Your task to perform on an android device: turn off translation in the chrome app Image 0: 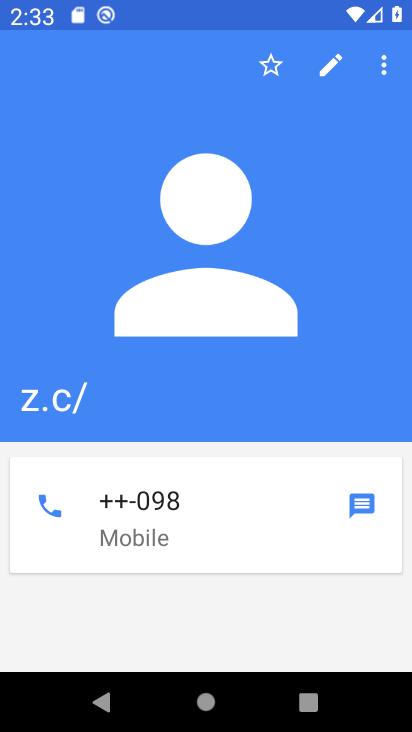
Step 0: press home button
Your task to perform on an android device: turn off translation in the chrome app Image 1: 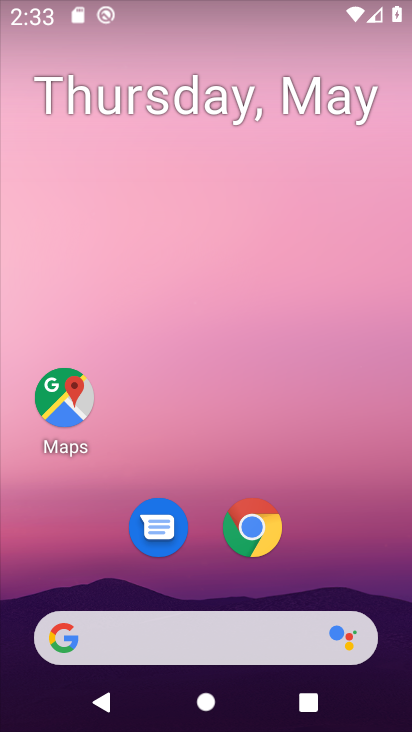
Step 1: click (275, 535)
Your task to perform on an android device: turn off translation in the chrome app Image 2: 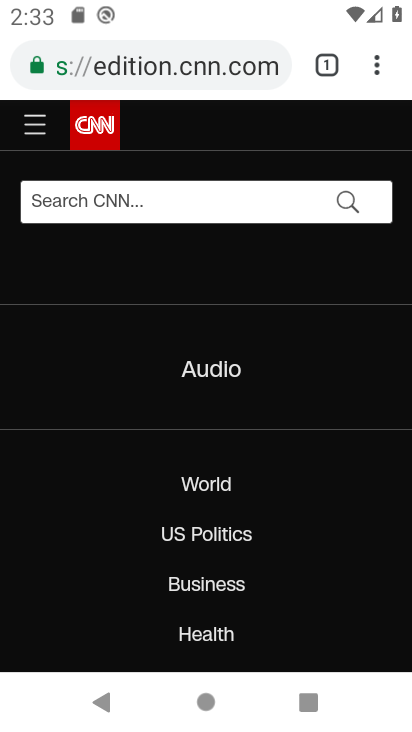
Step 2: drag from (380, 66) to (177, 594)
Your task to perform on an android device: turn off translation in the chrome app Image 3: 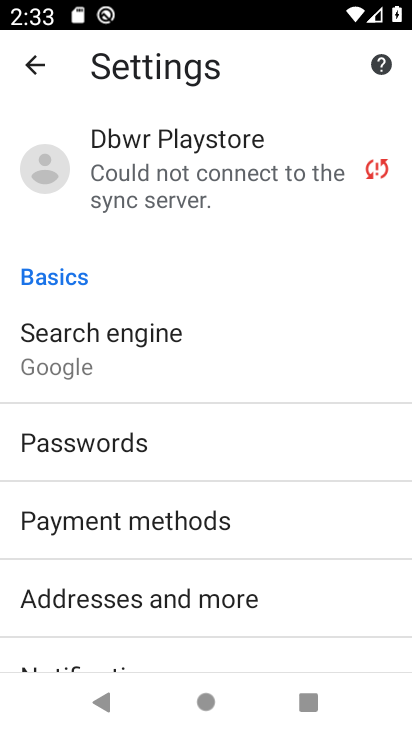
Step 3: drag from (178, 608) to (217, 129)
Your task to perform on an android device: turn off translation in the chrome app Image 4: 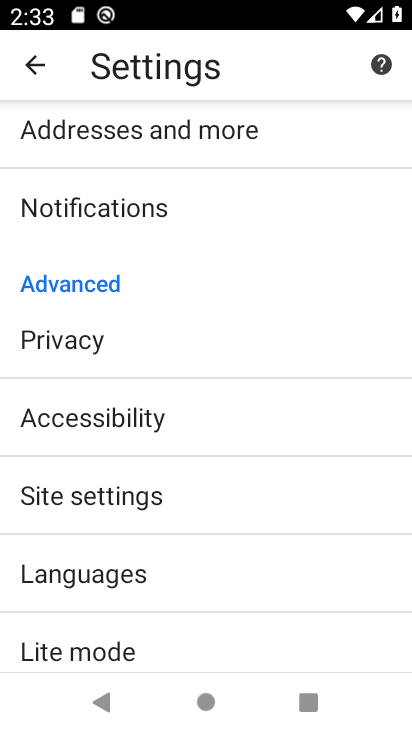
Step 4: click (200, 603)
Your task to perform on an android device: turn off translation in the chrome app Image 5: 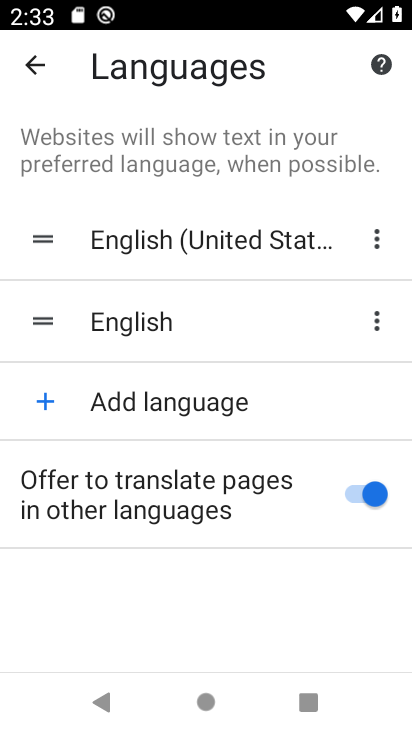
Step 5: click (190, 487)
Your task to perform on an android device: turn off translation in the chrome app Image 6: 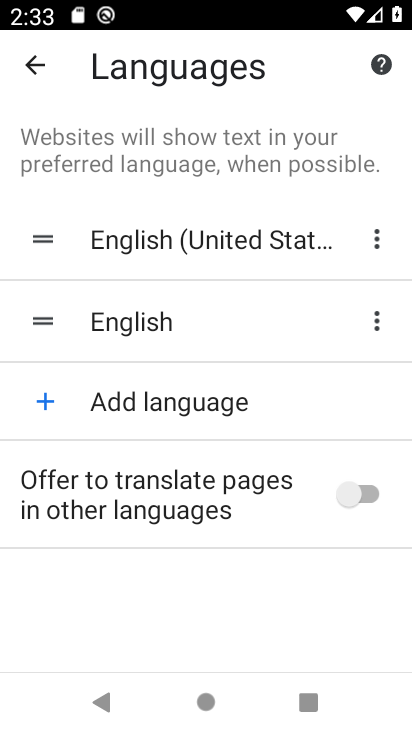
Step 6: task complete